Your task to perform on an android device: turn on notifications settings in the gmail app Image 0: 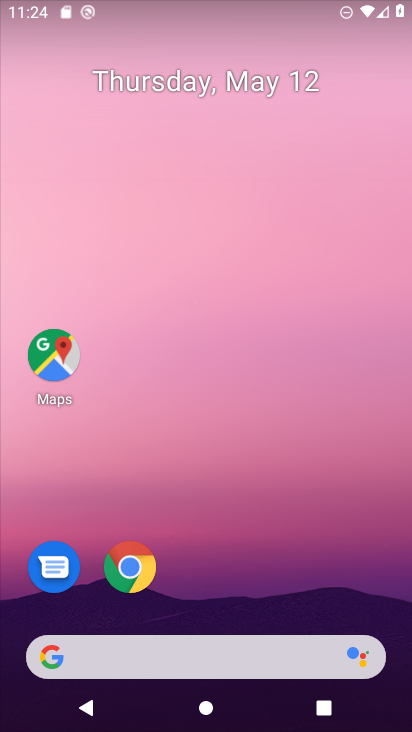
Step 0: drag from (277, 502) to (299, 70)
Your task to perform on an android device: turn on notifications settings in the gmail app Image 1: 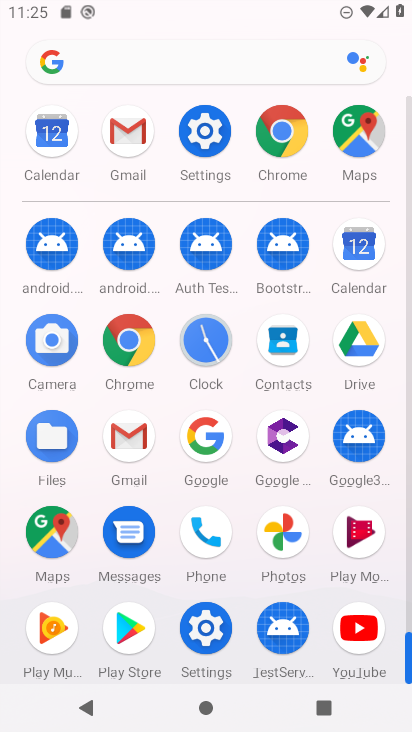
Step 1: click (131, 448)
Your task to perform on an android device: turn on notifications settings in the gmail app Image 2: 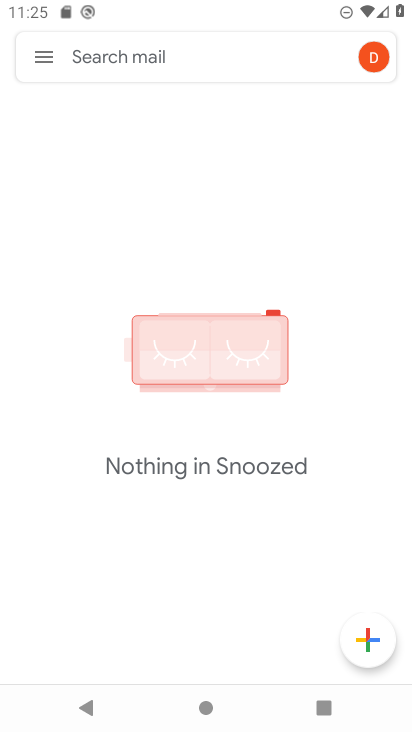
Step 2: click (48, 63)
Your task to perform on an android device: turn on notifications settings in the gmail app Image 3: 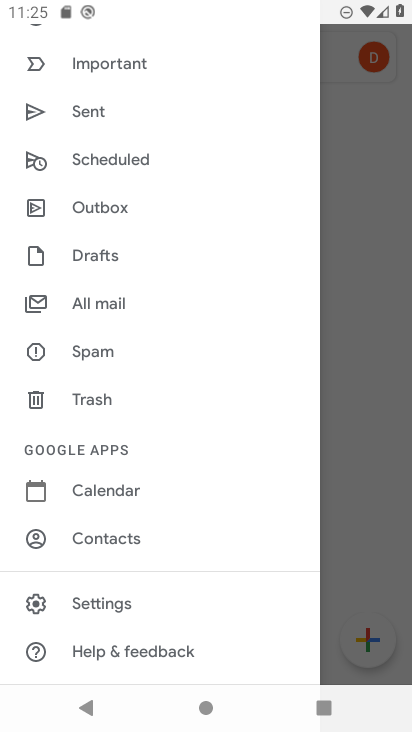
Step 3: click (101, 600)
Your task to perform on an android device: turn on notifications settings in the gmail app Image 4: 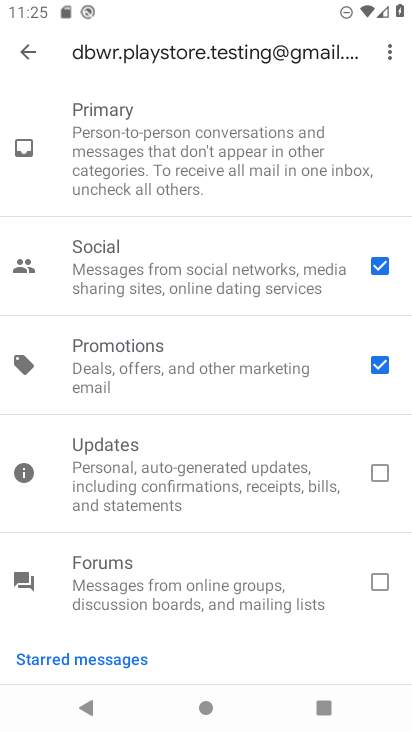
Step 4: click (30, 59)
Your task to perform on an android device: turn on notifications settings in the gmail app Image 5: 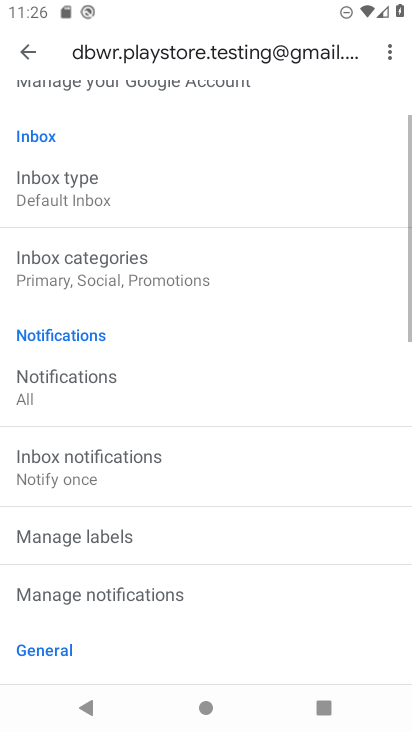
Step 5: drag from (175, 309) to (150, 646)
Your task to perform on an android device: turn on notifications settings in the gmail app Image 6: 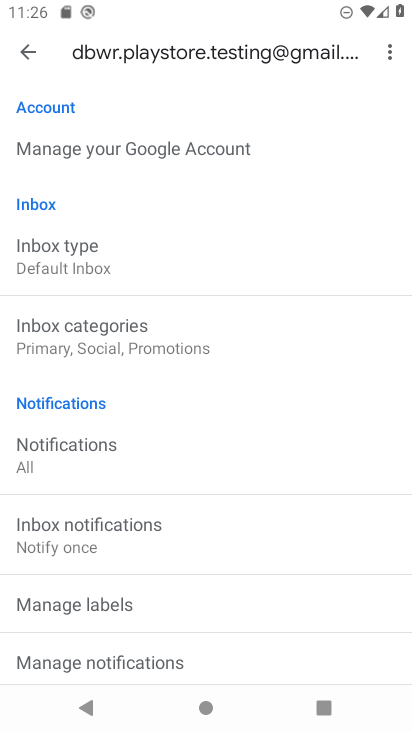
Step 6: drag from (218, 340) to (189, 602)
Your task to perform on an android device: turn on notifications settings in the gmail app Image 7: 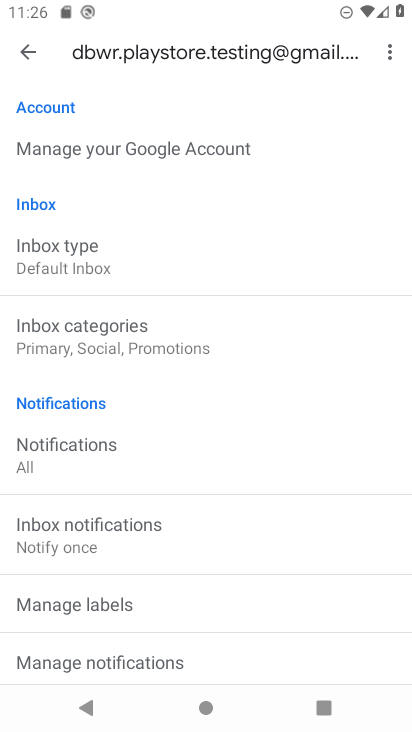
Step 7: click (37, 56)
Your task to perform on an android device: turn on notifications settings in the gmail app Image 8: 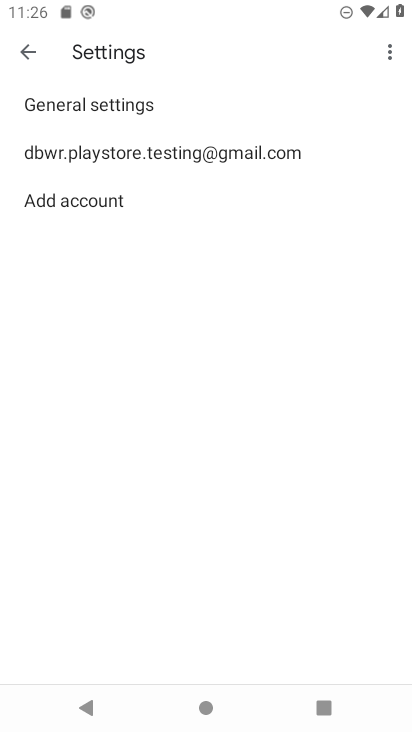
Step 8: click (86, 108)
Your task to perform on an android device: turn on notifications settings in the gmail app Image 9: 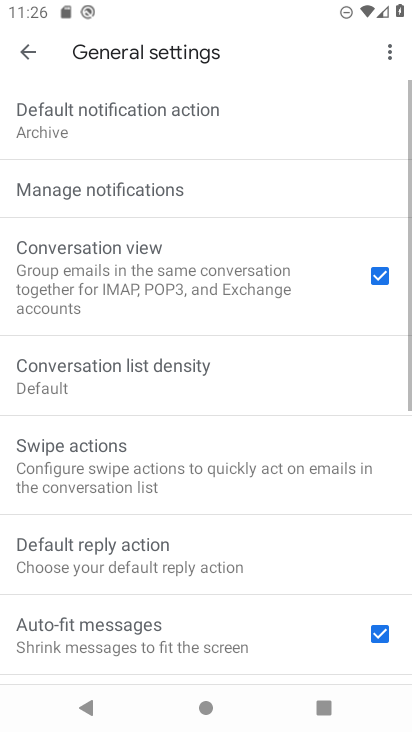
Step 9: click (113, 208)
Your task to perform on an android device: turn on notifications settings in the gmail app Image 10: 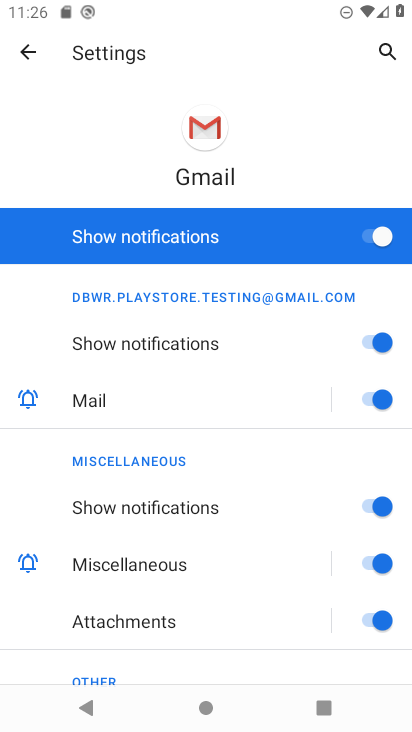
Step 10: task complete